Your task to perform on an android device: See recent photos Image 0: 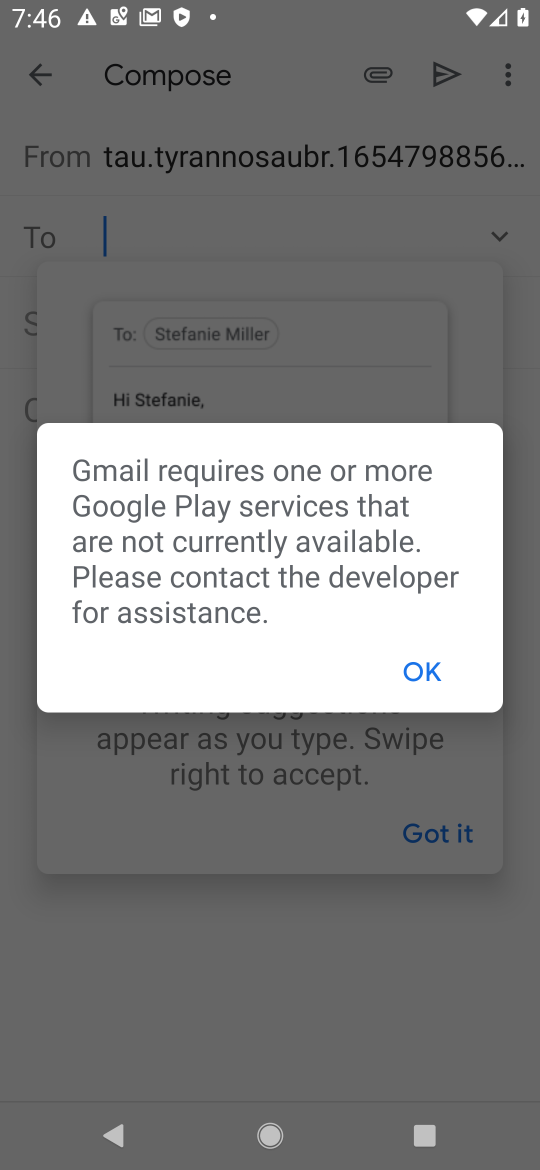
Step 0: press home button
Your task to perform on an android device: See recent photos Image 1: 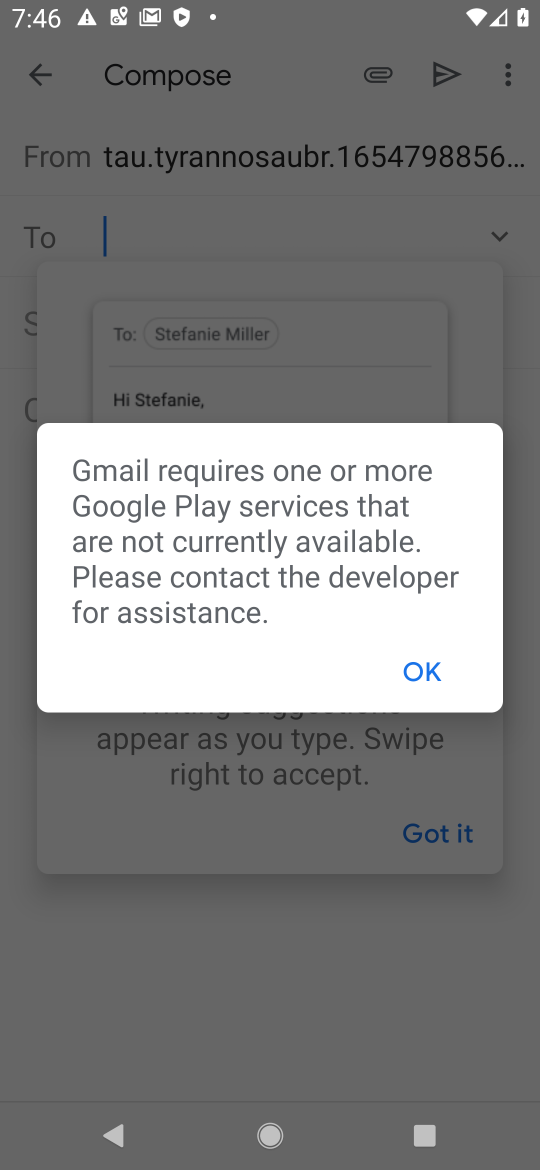
Step 1: drag from (502, 1042) to (262, 71)
Your task to perform on an android device: See recent photos Image 2: 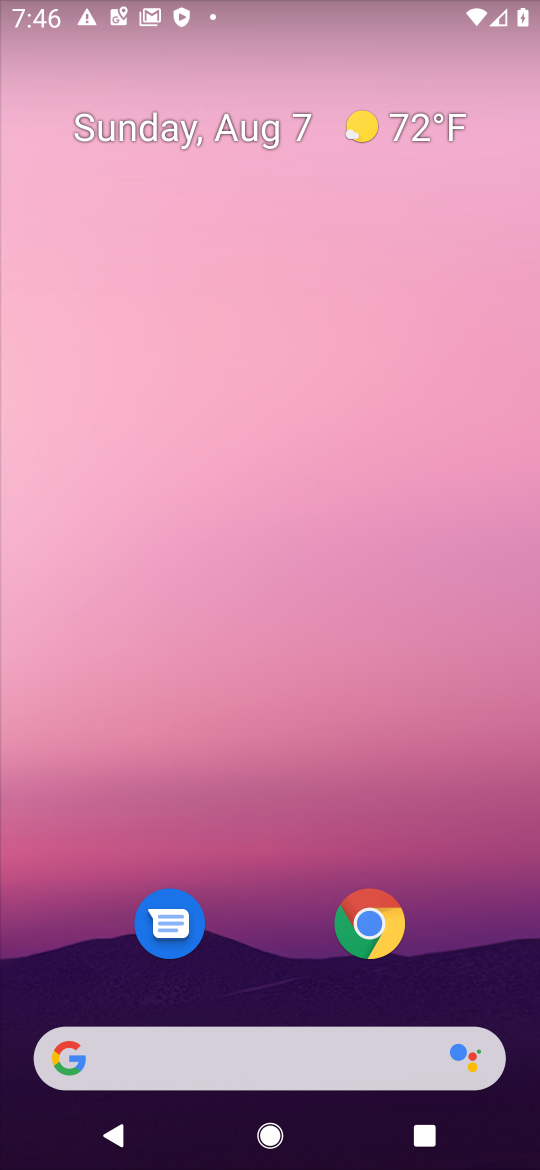
Step 2: drag from (490, 1018) to (322, 197)
Your task to perform on an android device: See recent photos Image 3: 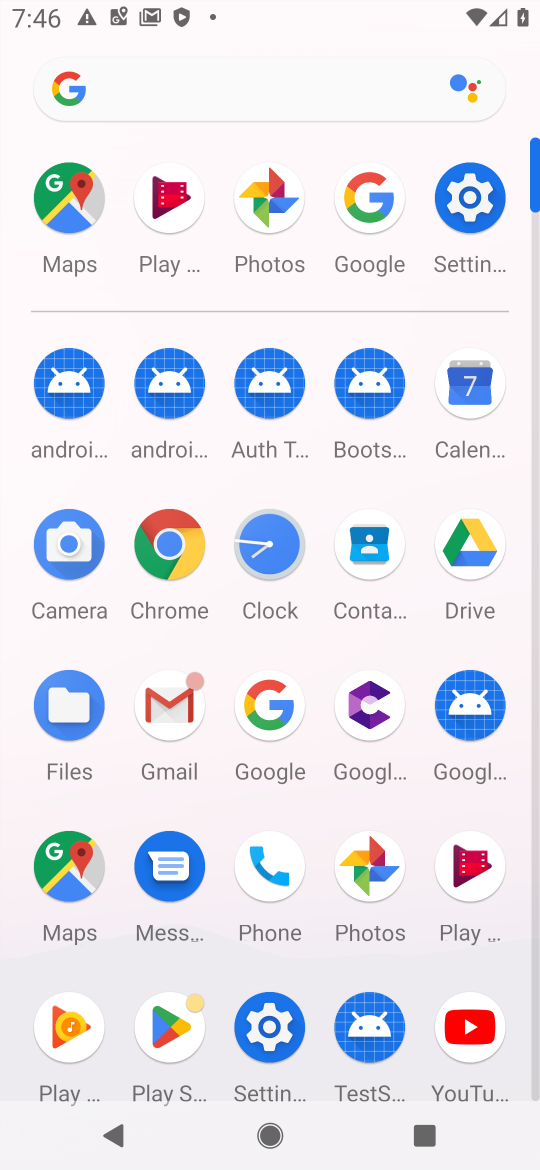
Step 3: click (344, 864)
Your task to perform on an android device: See recent photos Image 4: 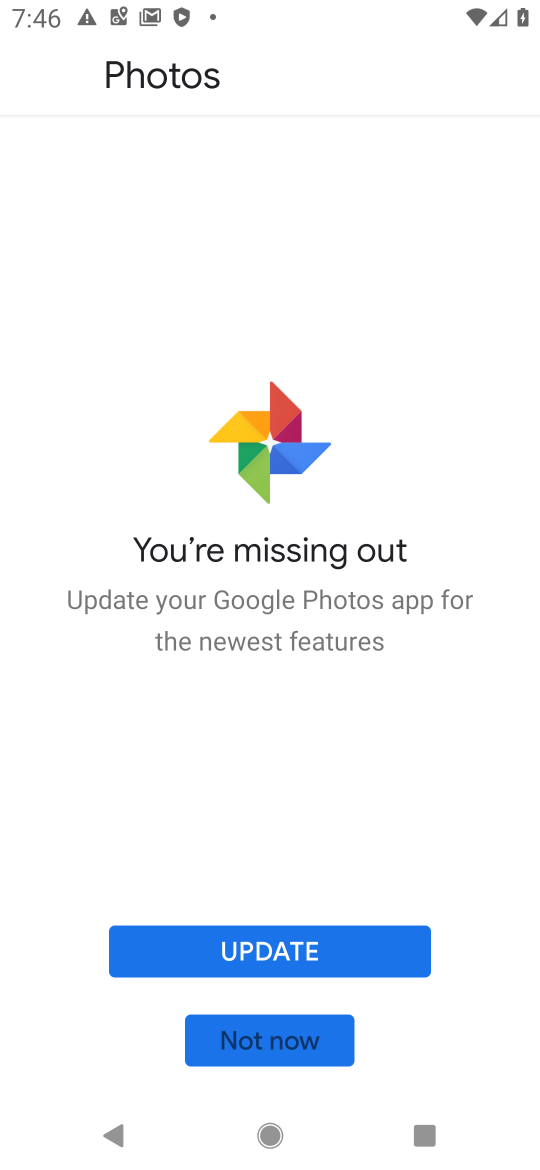
Step 4: click (341, 943)
Your task to perform on an android device: See recent photos Image 5: 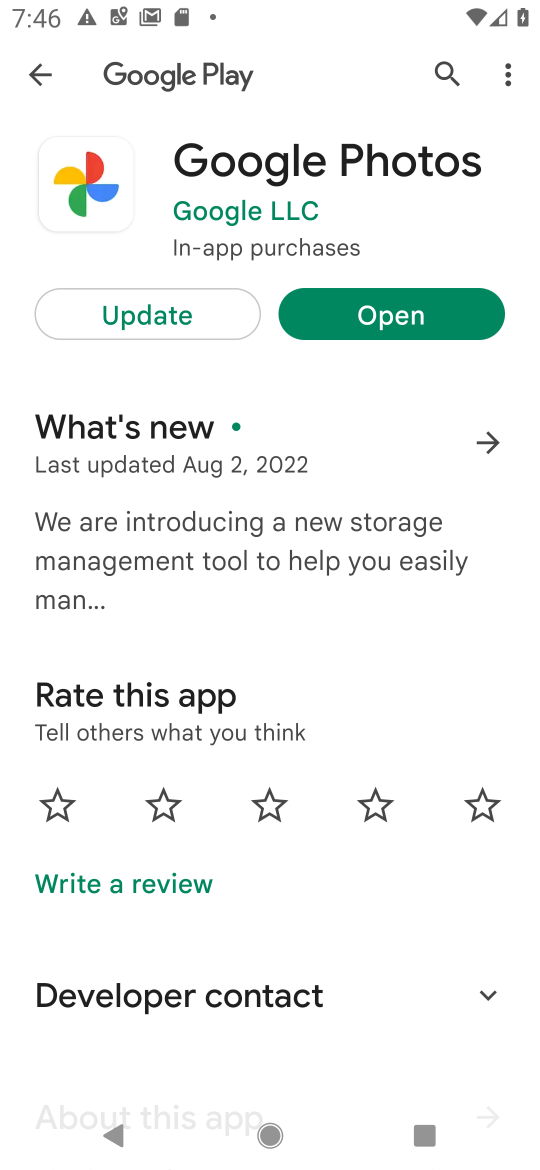
Step 5: click (416, 291)
Your task to perform on an android device: See recent photos Image 6: 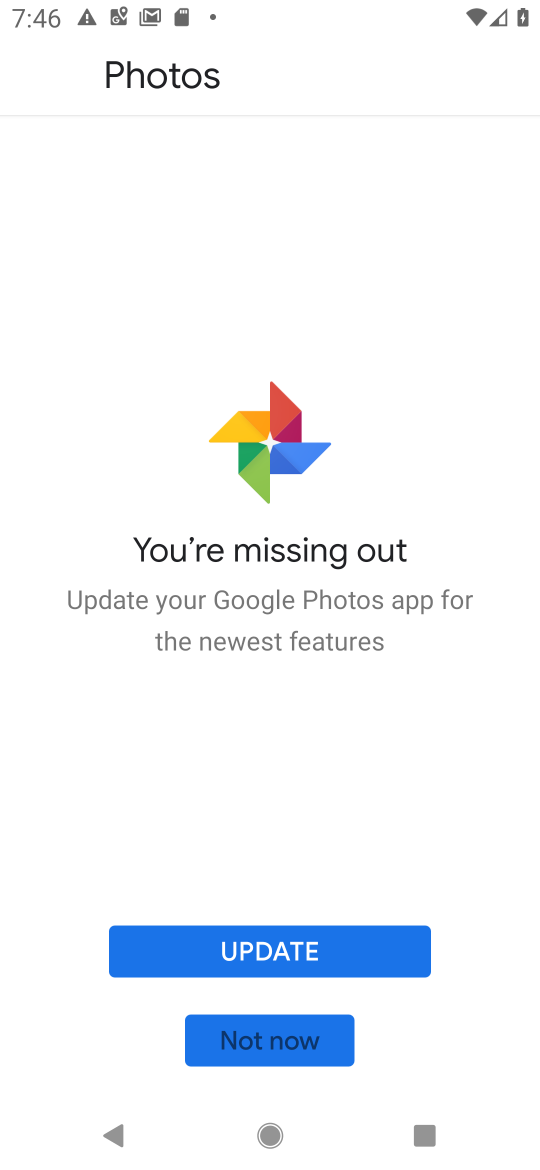
Step 6: task complete